Your task to perform on an android device: find snoozed emails in the gmail app Image 0: 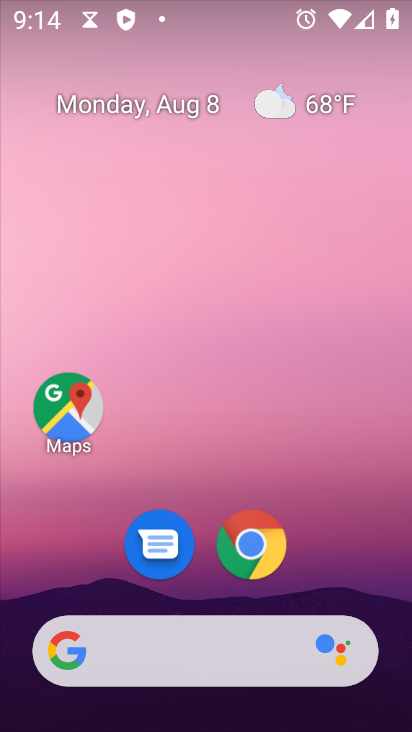
Step 0: press home button
Your task to perform on an android device: find snoozed emails in the gmail app Image 1: 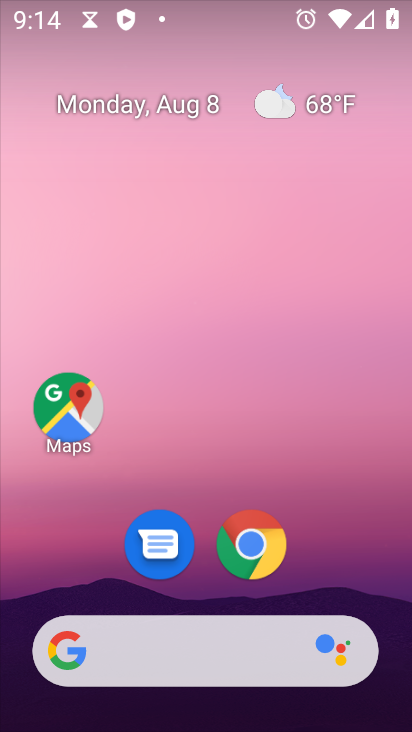
Step 1: drag from (321, 570) to (320, 24)
Your task to perform on an android device: find snoozed emails in the gmail app Image 2: 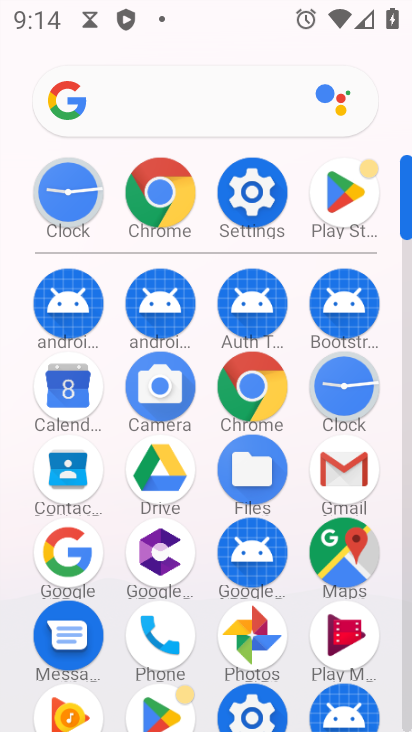
Step 2: click (341, 465)
Your task to perform on an android device: find snoozed emails in the gmail app Image 3: 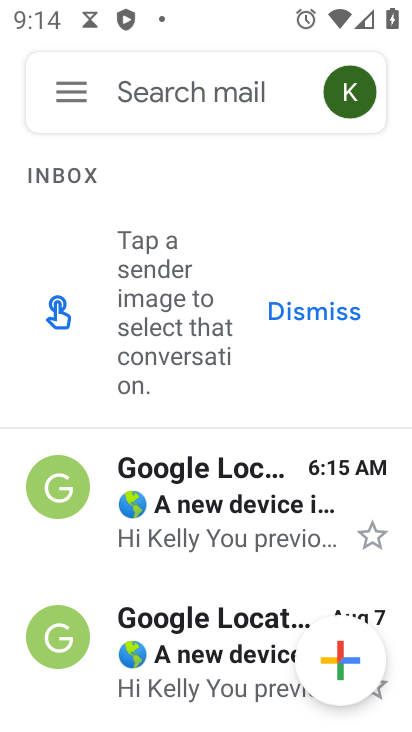
Step 3: click (67, 95)
Your task to perform on an android device: find snoozed emails in the gmail app Image 4: 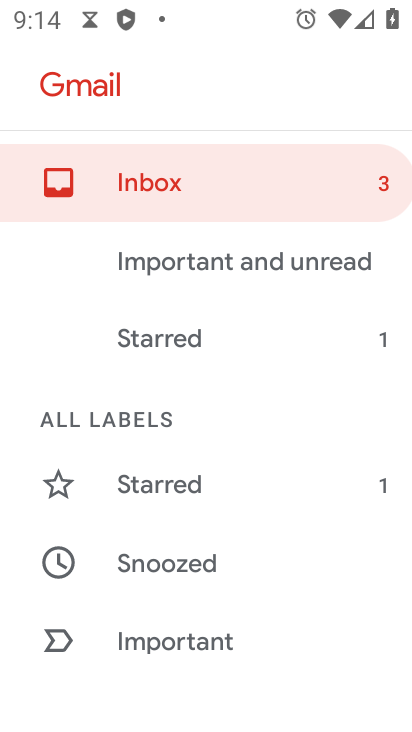
Step 4: click (226, 562)
Your task to perform on an android device: find snoozed emails in the gmail app Image 5: 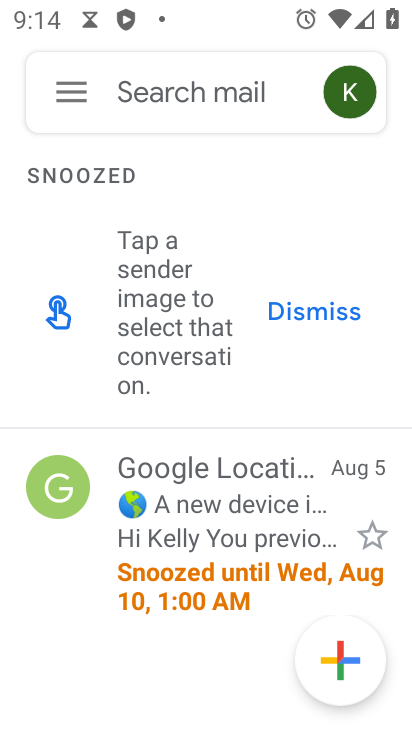
Step 5: task complete